Your task to perform on an android device: delete browsing data in the chrome app Image 0: 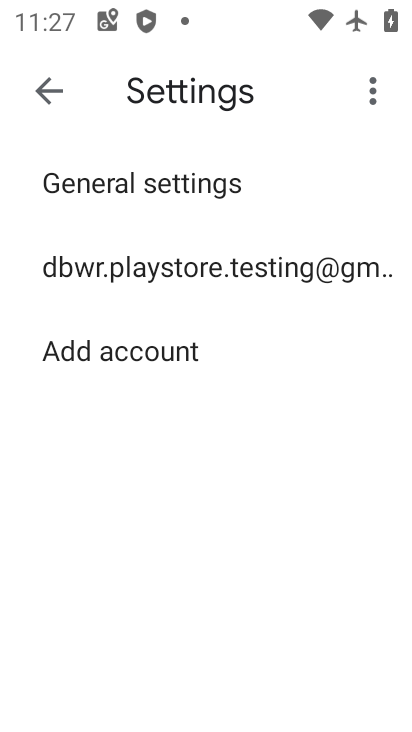
Step 0: press home button
Your task to perform on an android device: delete browsing data in the chrome app Image 1: 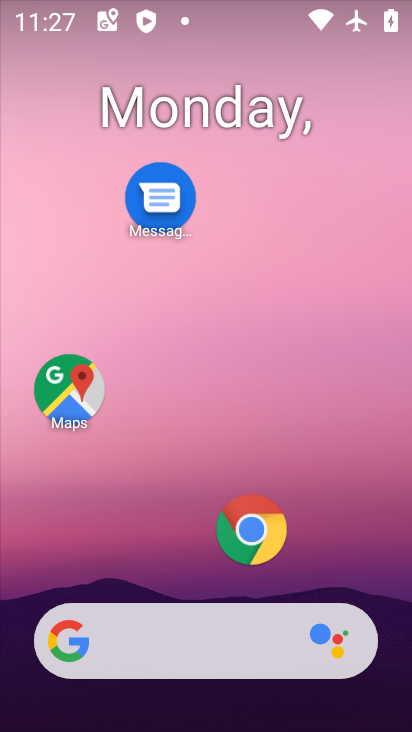
Step 1: drag from (209, 368) to (272, 178)
Your task to perform on an android device: delete browsing data in the chrome app Image 2: 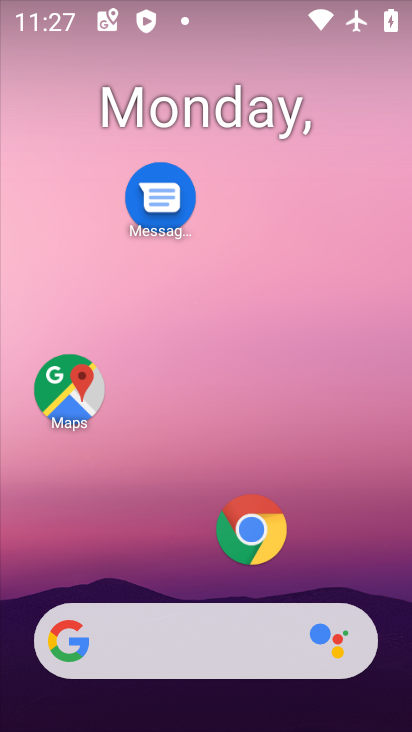
Step 2: drag from (162, 540) to (268, 100)
Your task to perform on an android device: delete browsing data in the chrome app Image 3: 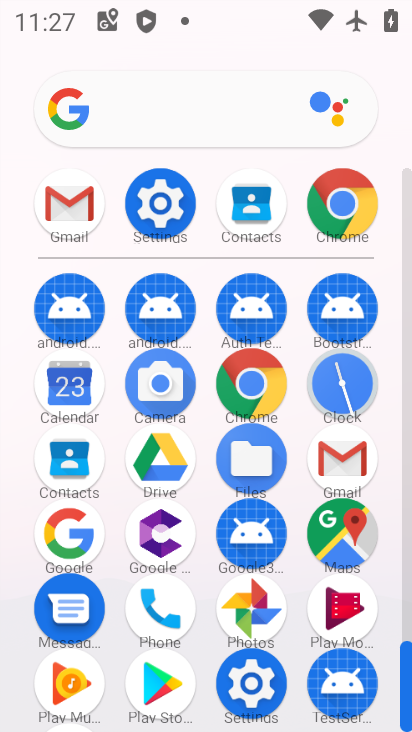
Step 3: click (248, 391)
Your task to perform on an android device: delete browsing data in the chrome app Image 4: 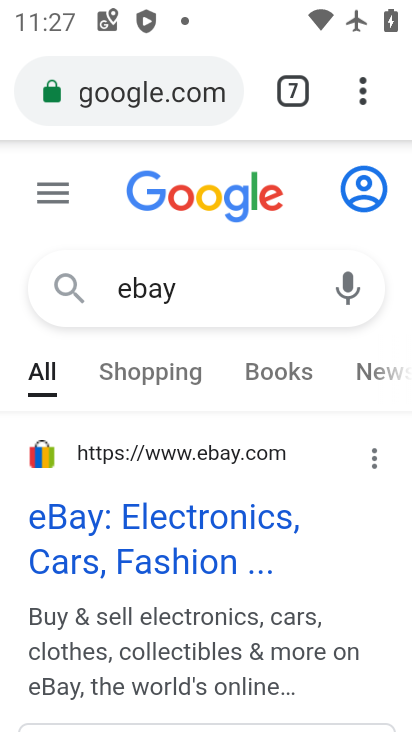
Step 4: click (363, 86)
Your task to perform on an android device: delete browsing data in the chrome app Image 5: 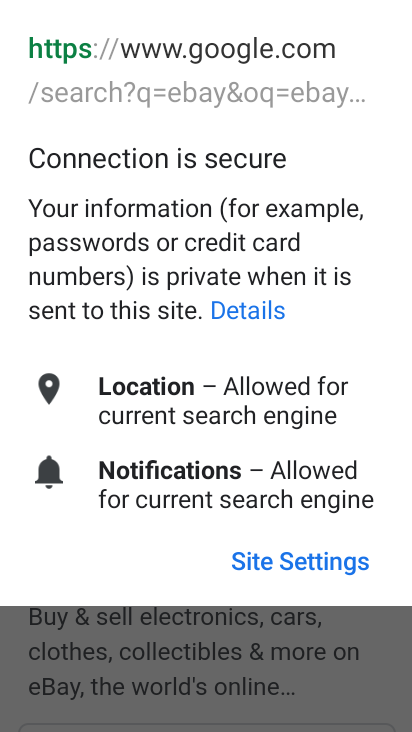
Step 5: drag from (279, 570) to (276, 643)
Your task to perform on an android device: delete browsing data in the chrome app Image 6: 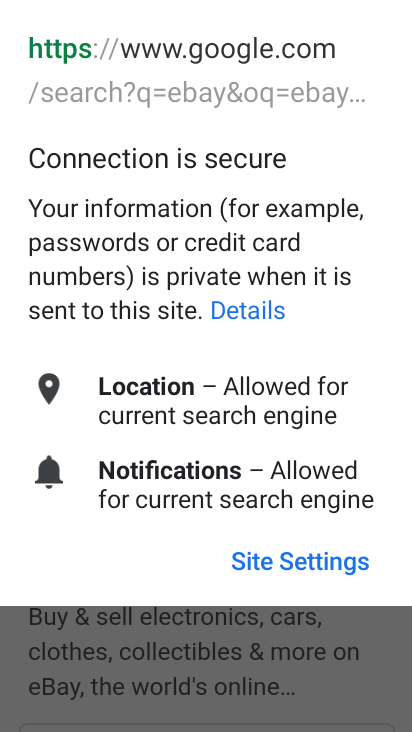
Step 6: click (274, 660)
Your task to perform on an android device: delete browsing data in the chrome app Image 7: 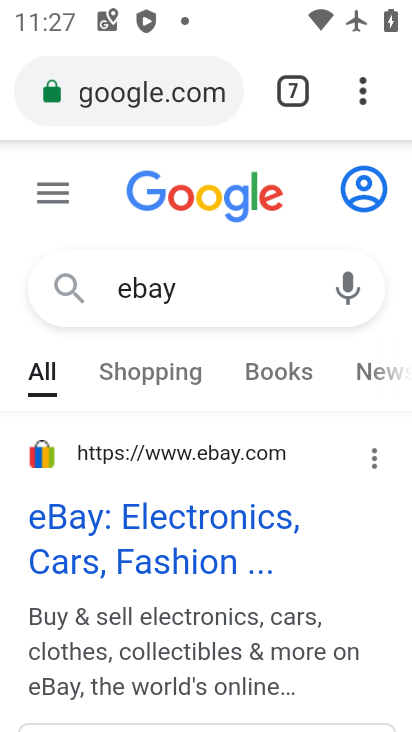
Step 7: click (366, 75)
Your task to perform on an android device: delete browsing data in the chrome app Image 8: 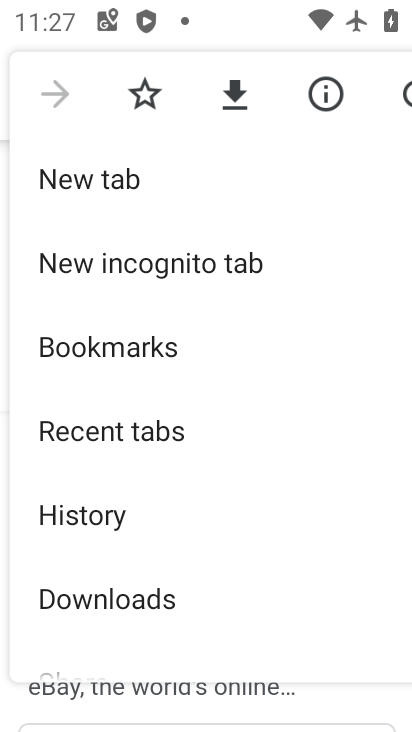
Step 8: click (144, 517)
Your task to perform on an android device: delete browsing data in the chrome app Image 9: 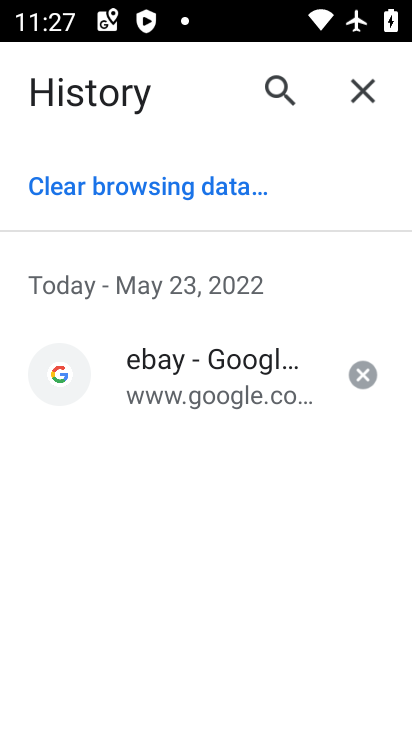
Step 9: click (141, 184)
Your task to perform on an android device: delete browsing data in the chrome app Image 10: 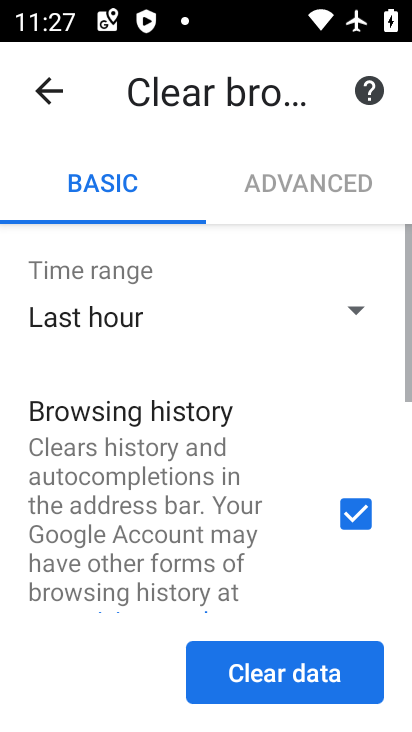
Step 10: click (244, 682)
Your task to perform on an android device: delete browsing data in the chrome app Image 11: 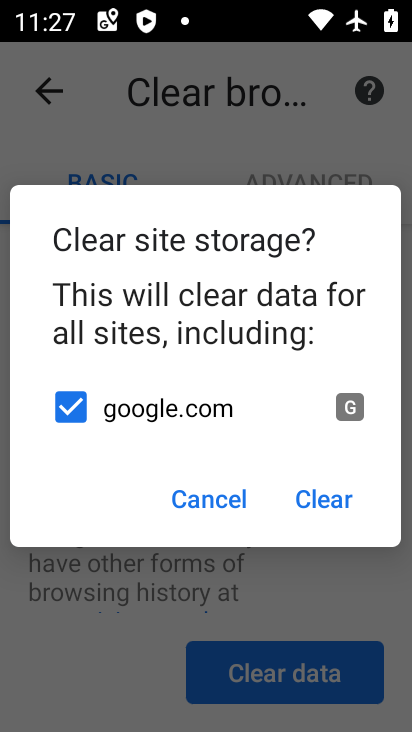
Step 11: click (332, 509)
Your task to perform on an android device: delete browsing data in the chrome app Image 12: 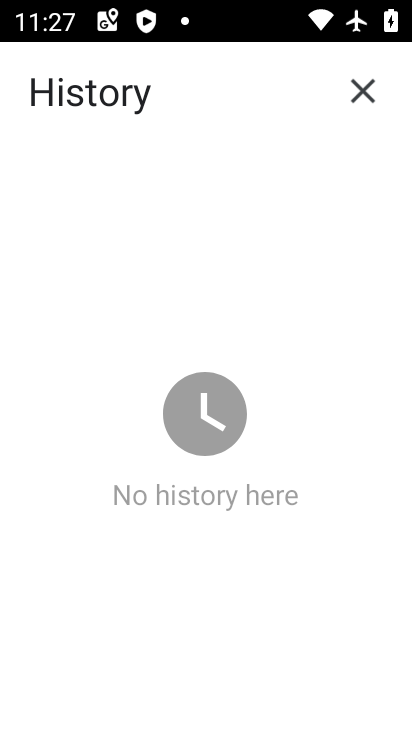
Step 12: task complete